Your task to perform on an android device: Show the shopping cart on ebay. Add dell xps to the cart on ebay Image 0: 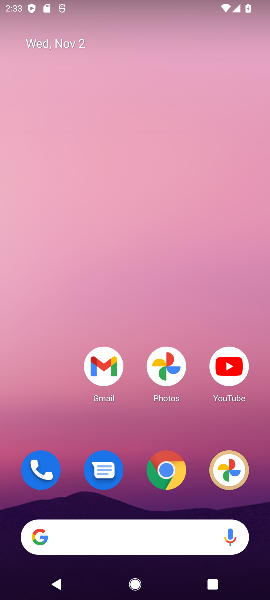
Step 0: drag from (129, 504) to (137, 240)
Your task to perform on an android device: Show the shopping cart on ebay. Add dell xps to the cart on ebay Image 1: 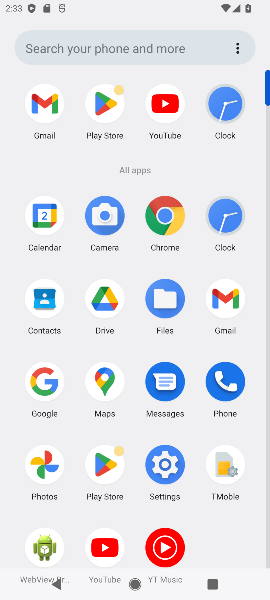
Step 1: click (39, 382)
Your task to perform on an android device: Show the shopping cart on ebay. Add dell xps to the cart on ebay Image 2: 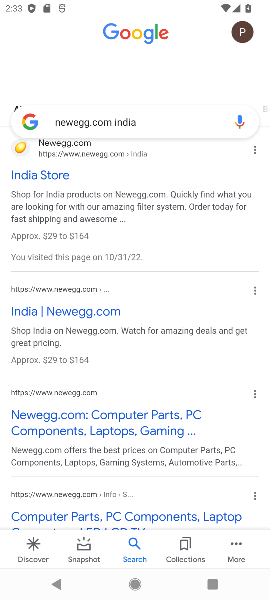
Step 2: click (144, 119)
Your task to perform on an android device: Show the shopping cart on ebay. Add dell xps to the cart on ebay Image 3: 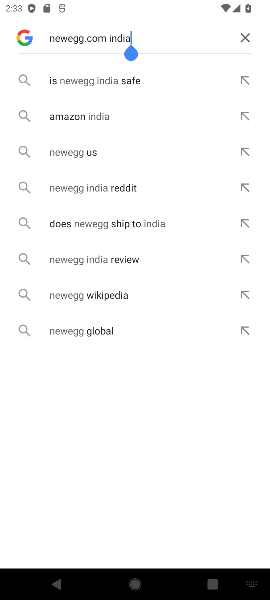
Step 3: click (246, 37)
Your task to perform on an android device: Show the shopping cart on ebay. Add dell xps to the cart on ebay Image 4: 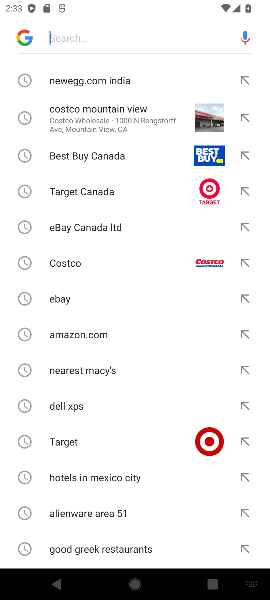
Step 4: click (98, 34)
Your task to perform on an android device: Show the shopping cart on ebay. Add dell xps to the cart on ebay Image 5: 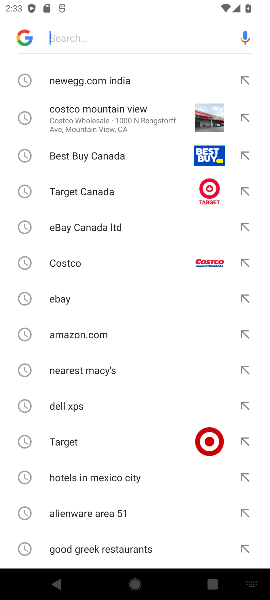
Step 5: click (98, 34)
Your task to perform on an android device: Show the shopping cart on ebay. Add dell xps to the cart on ebay Image 6: 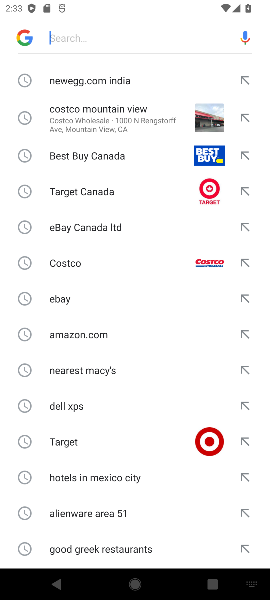
Step 6: type "ebay "
Your task to perform on an android device: Show the shopping cart on ebay. Add dell xps to the cart on ebay Image 7: 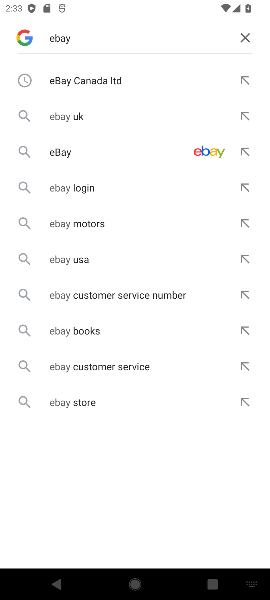
Step 7: click (55, 113)
Your task to perform on an android device: Show the shopping cart on ebay. Add dell xps to the cart on ebay Image 8: 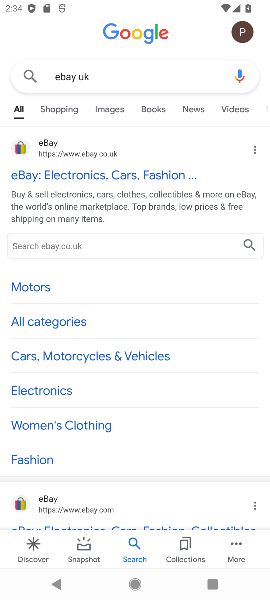
Step 8: click (23, 151)
Your task to perform on an android device: Show the shopping cart on ebay. Add dell xps to the cart on ebay Image 9: 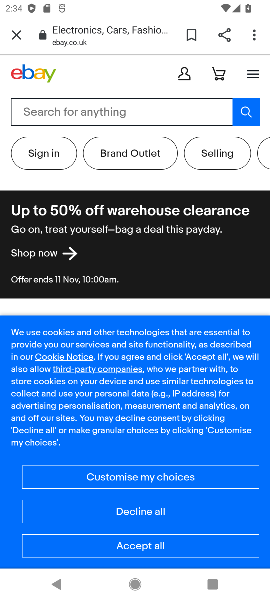
Step 9: click (147, 538)
Your task to perform on an android device: Show the shopping cart on ebay. Add dell xps to the cart on ebay Image 10: 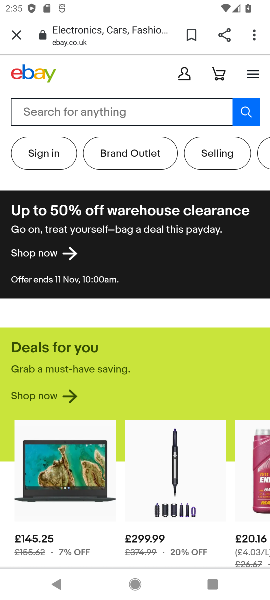
Step 10: click (129, 106)
Your task to perform on an android device: Show the shopping cart on ebay. Add dell xps to the cart on ebay Image 11: 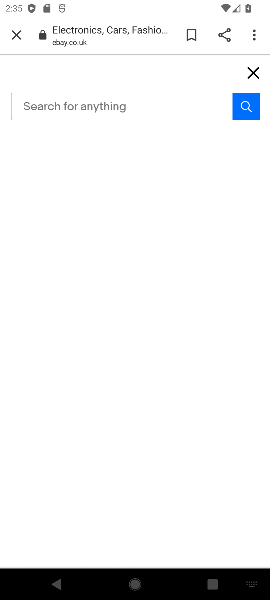
Step 11: type "dell xps  "
Your task to perform on an android device: Show the shopping cart on ebay. Add dell xps to the cart on ebay Image 12: 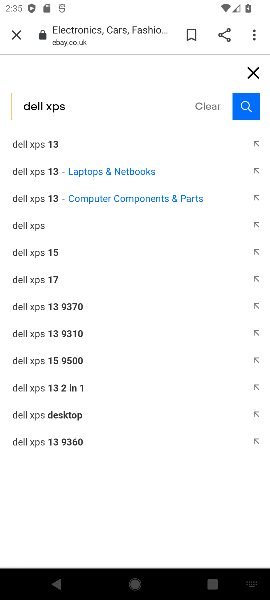
Step 12: click (25, 144)
Your task to perform on an android device: Show the shopping cart on ebay. Add dell xps to the cart on ebay Image 13: 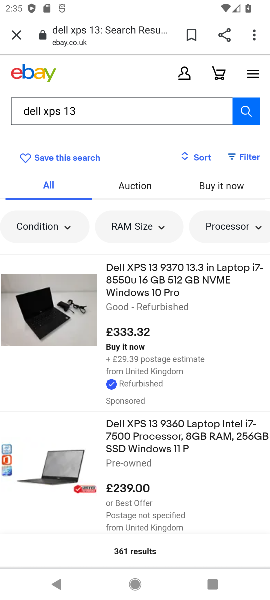
Step 13: click (180, 273)
Your task to perform on an android device: Show the shopping cart on ebay. Add dell xps to the cart on ebay Image 14: 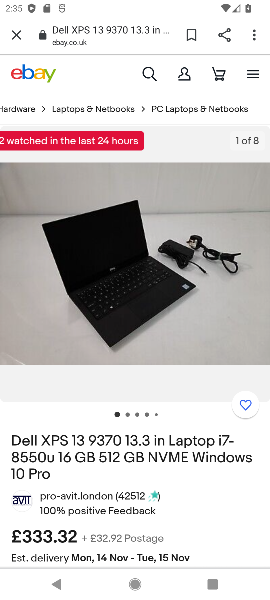
Step 14: drag from (131, 478) to (154, 166)
Your task to perform on an android device: Show the shopping cart on ebay. Add dell xps to the cart on ebay Image 15: 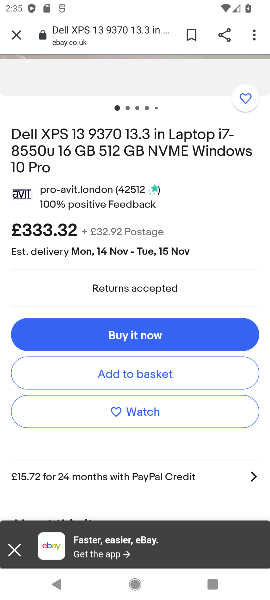
Step 15: click (152, 368)
Your task to perform on an android device: Show the shopping cart on ebay. Add dell xps to the cart on ebay Image 16: 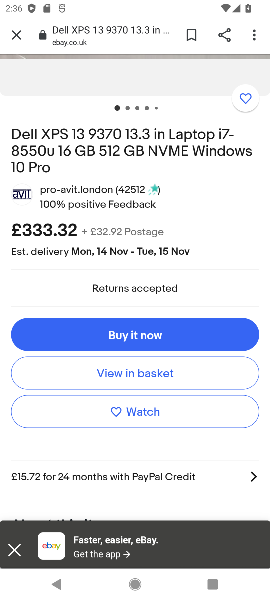
Step 16: task complete